Your task to perform on an android device: open device folders in google photos Image 0: 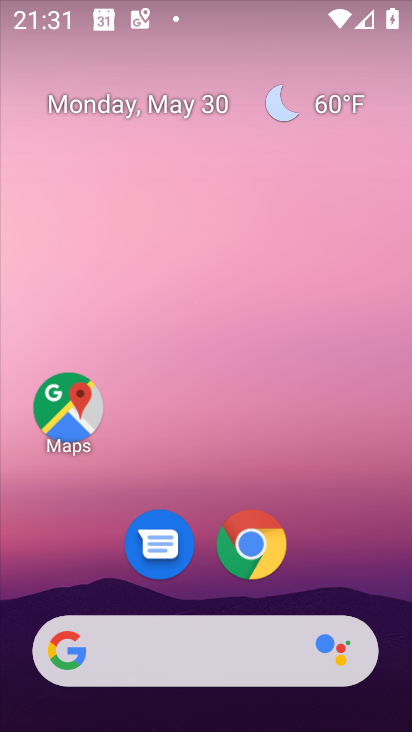
Step 0: drag from (333, 586) to (280, 61)
Your task to perform on an android device: open device folders in google photos Image 1: 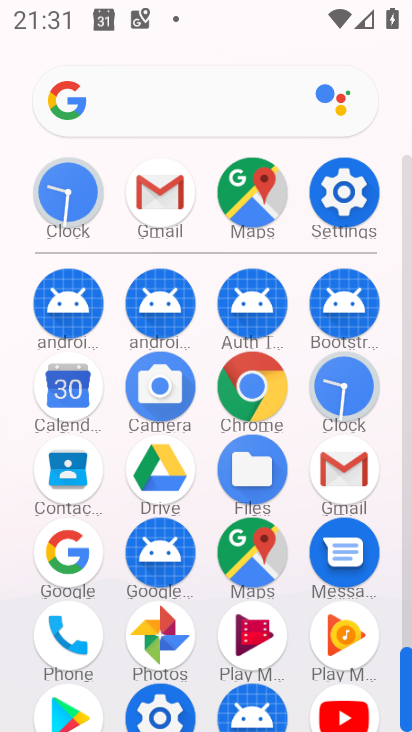
Step 1: drag from (203, 505) to (204, 373)
Your task to perform on an android device: open device folders in google photos Image 2: 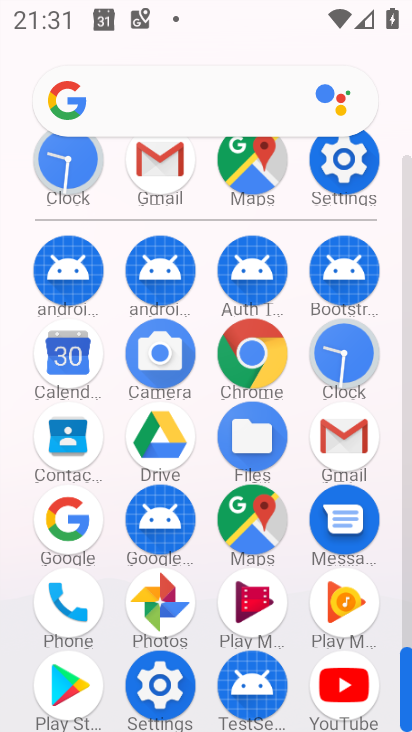
Step 2: click (162, 600)
Your task to perform on an android device: open device folders in google photos Image 3: 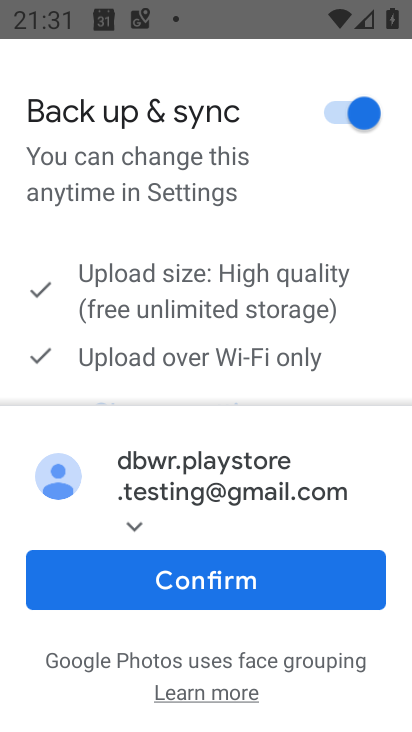
Step 3: click (197, 573)
Your task to perform on an android device: open device folders in google photos Image 4: 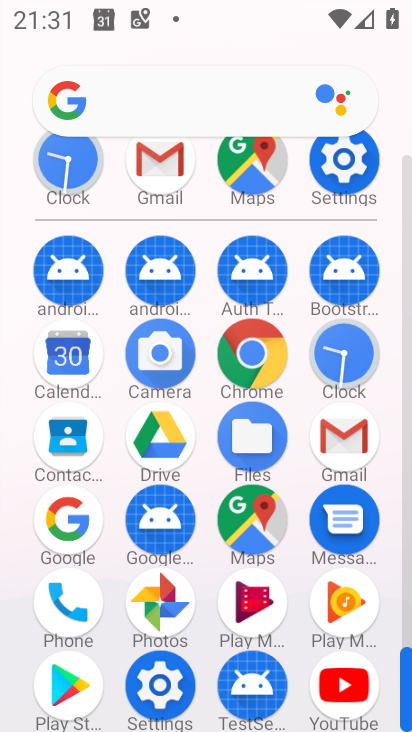
Step 4: click (164, 602)
Your task to perform on an android device: open device folders in google photos Image 5: 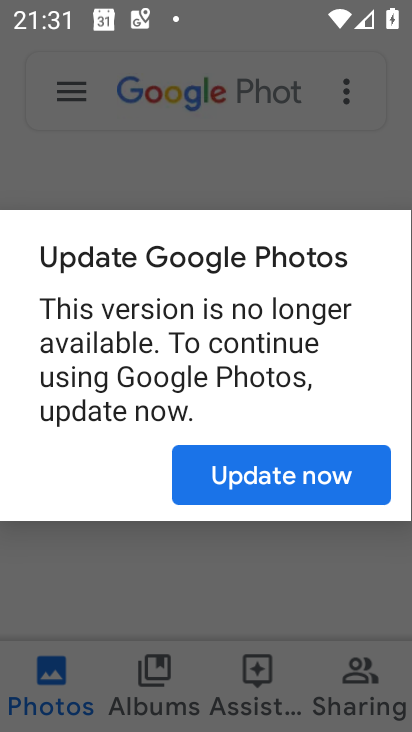
Step 5: click (272, 469)
Your task to perform on an android device: open device folders in google photos Image 6: 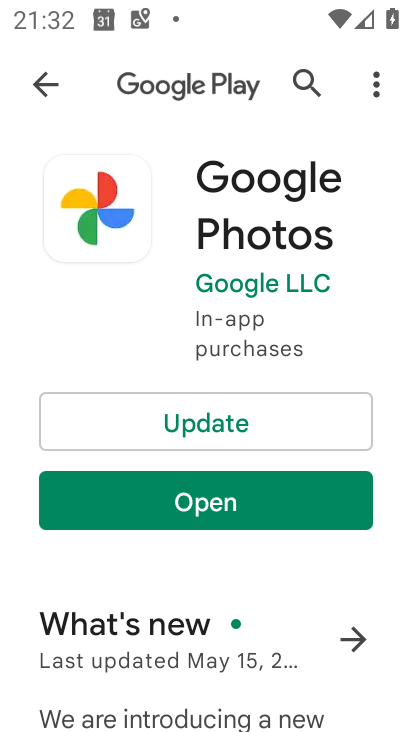
Step 6: click (210, 433)
Your task to perform on an android device: open device folders in google photos Image 7: 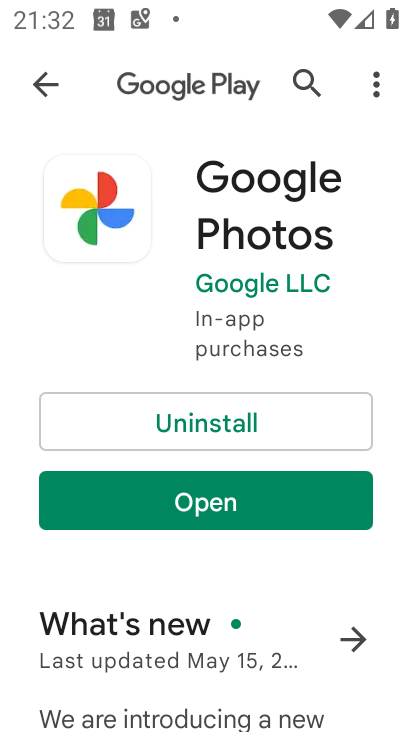
Step 7: click (202, 488)
Your task to perform on an android device: open device folders in google photos Image 8: 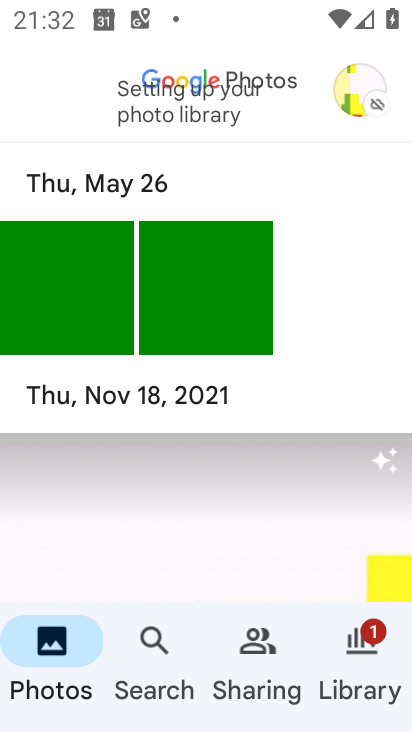
Step 8: click (376, 649)
Your task to perform on an android device: open device folders in google photos Image 9: 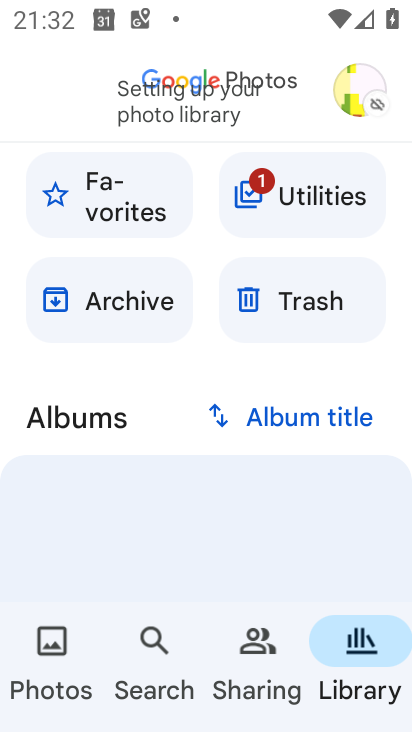
Step 9: click (292, 190)
Your task to perform on an android device: open device folders in google photos Image 10: 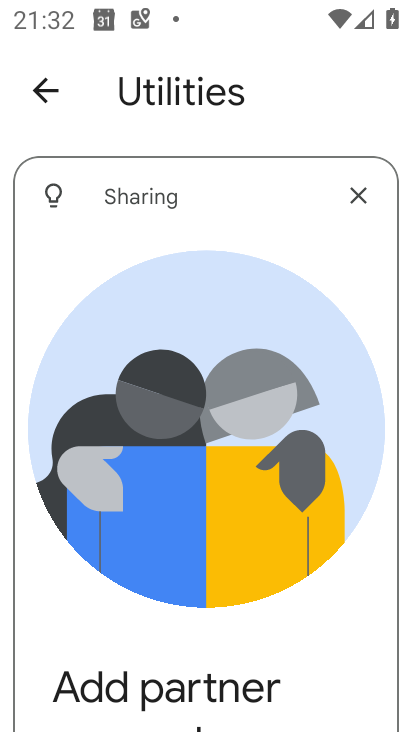
Step 10: drag from (171, 558) to (202, 260)
Your task to perform on an android device: open device folders in google photos Image 11: 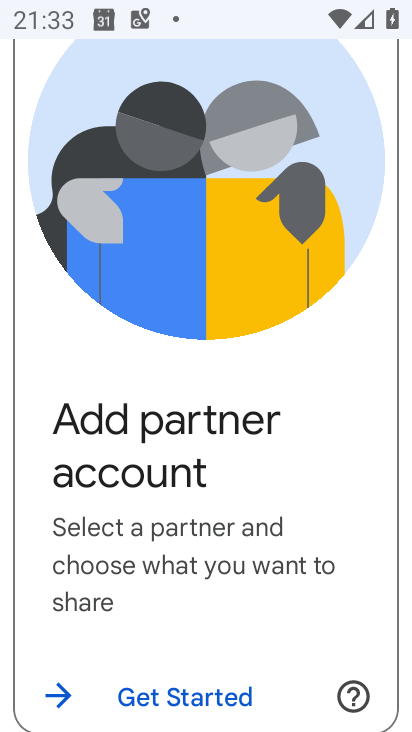
Step 11: drag from (179, 611) to (248, 370)
Your task to perform on an android device: open device folders in google photos Image 12: 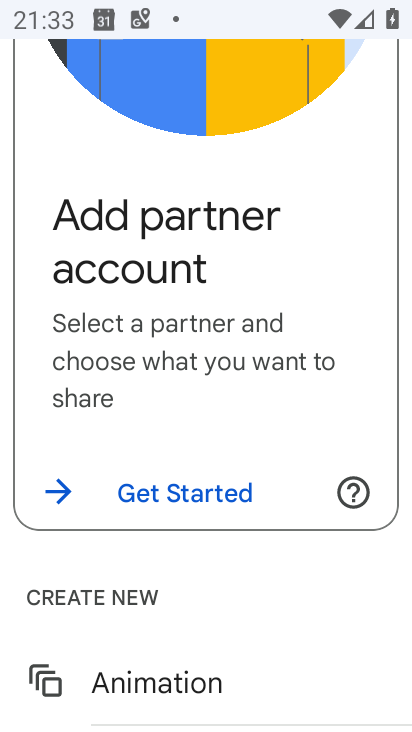
Step 12: drag from (186, 600) to (233, 503)
Your task to perform on an android device: open device folders in google photos Image 13: 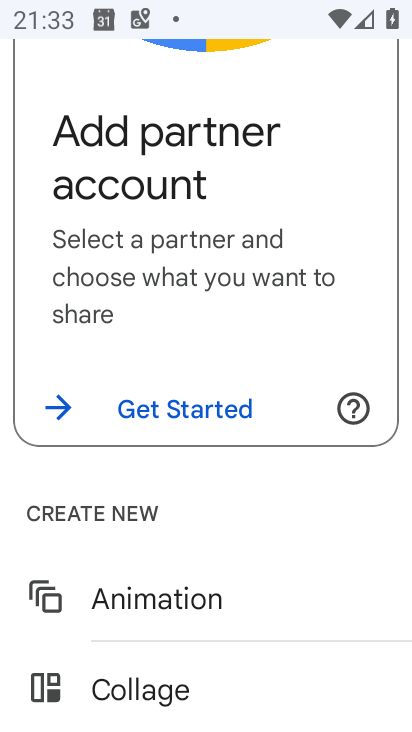
Step 13: drag from (225, 620) to (214, 496)
Your task to perform on an android device: open device folders in google photos Image 14: 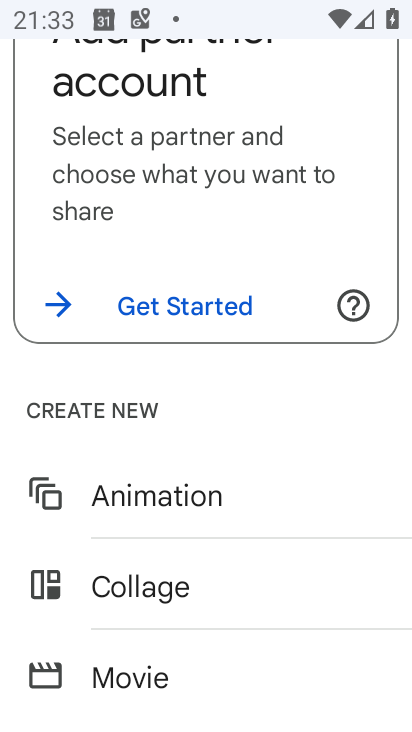
Step 14: drag from (167, 613) to (227, 475)
Your task to perform on an android device: open device folders in google photos Image 15: 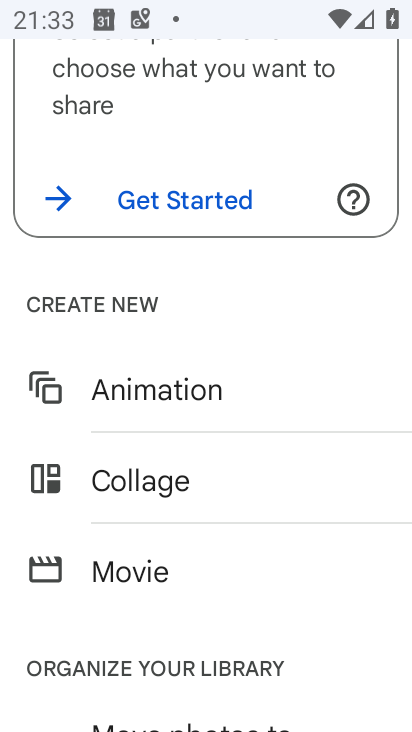
Step 15: drag from (210, 601) to (227, 506)
Your task to perform on an android device: open device folders in google photos Image 16: 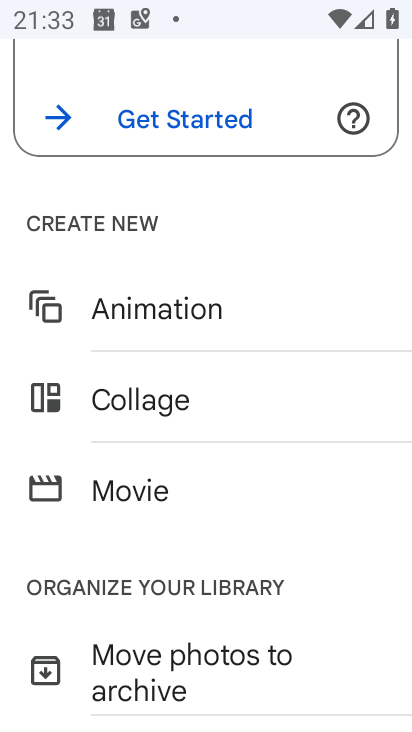
Step 16: drag from (195, 687) to (245, 518)
Your task to perform on an android device: open device folders in google photos Image 17: 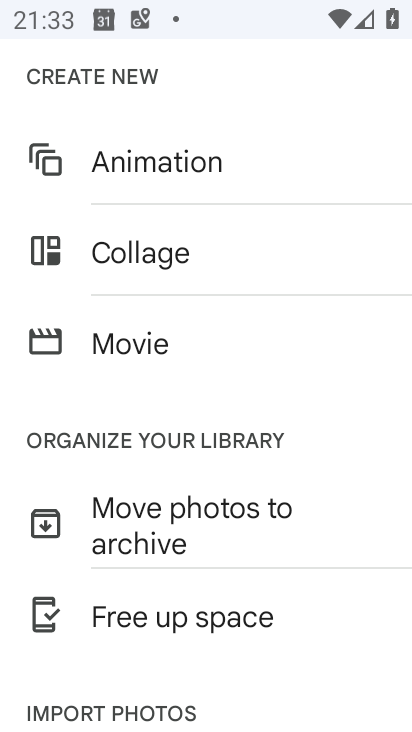
Step 17: drag from (191, 643) to (217, 476)
Your task to perform on an android device: open device folders in google photos Image 18: 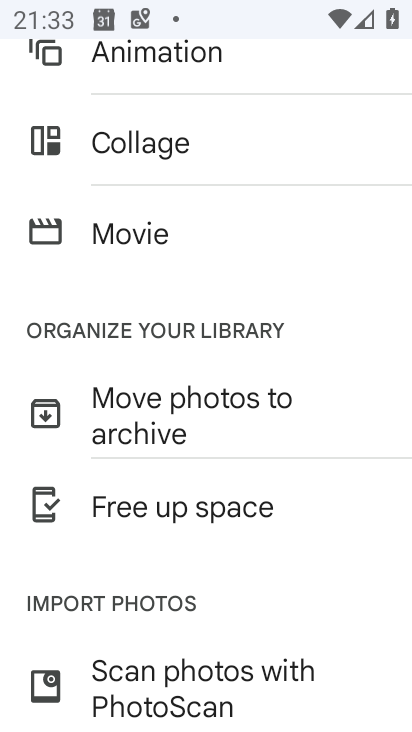
Step 18: drag from (207, 586) to (270, 446)
Your task to perform on an android device: open device folders in google photos Image 19: 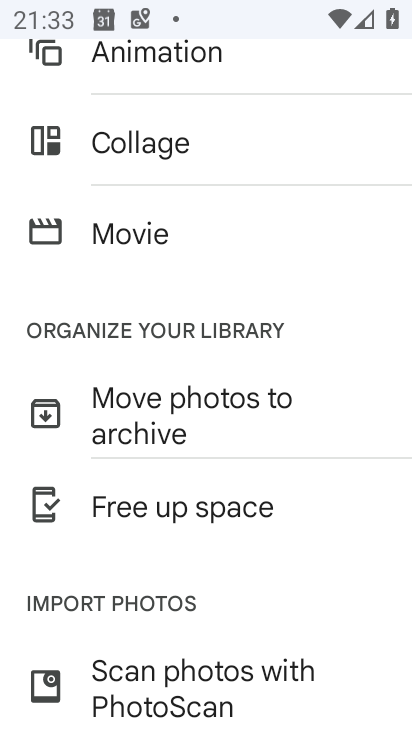
Step 19: drag from (242, 623) to (225, 390)
Your task to perform on an android device: open device folders in google photos Image 20: 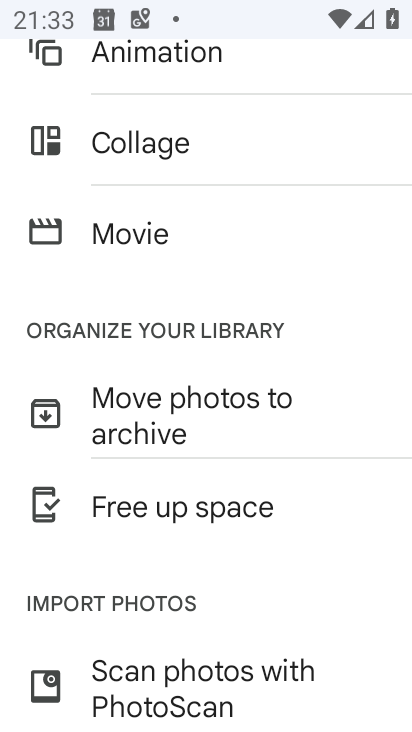
Step 20: drag from (237, 225) to (237, 591)
Your task to perform on an android device: open device folders in google photos Image 21: 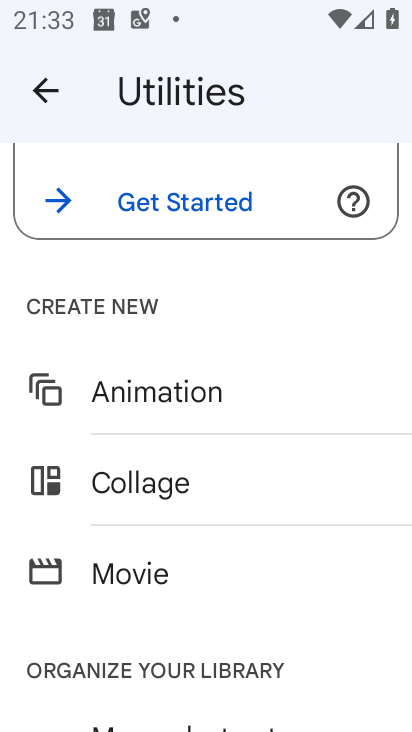
Step 21: click (33, 97)
Your task to perform on an android device: open device folders in google photos Image 22: 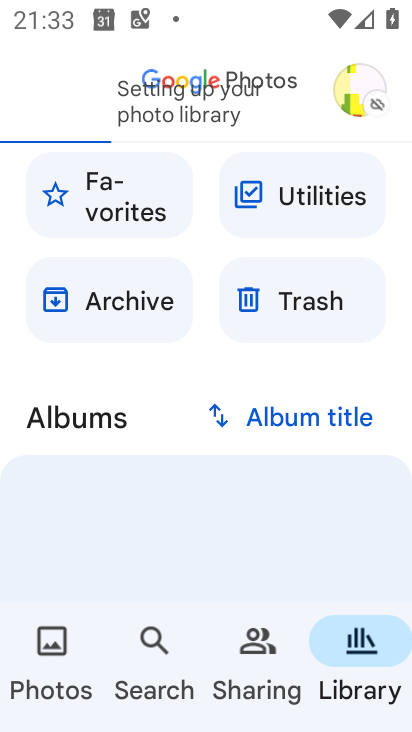
Step 22: click (153, 641)
Your task to perform on an android device: open device folders in google photos Image 23: 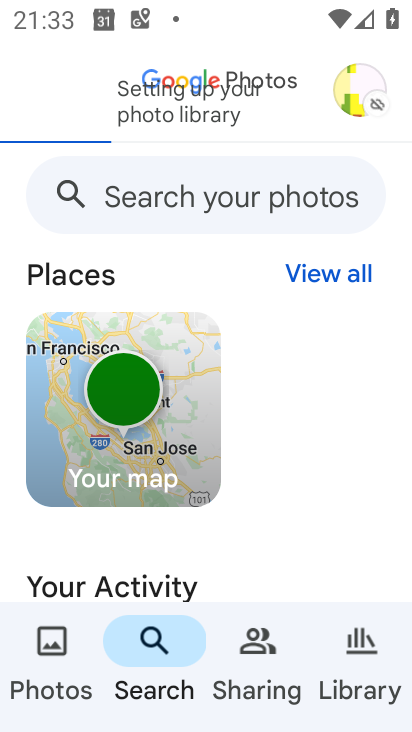
Step 23: task complete